Your task to perform on an android device: Is it going to rain this weekend? Image 0: 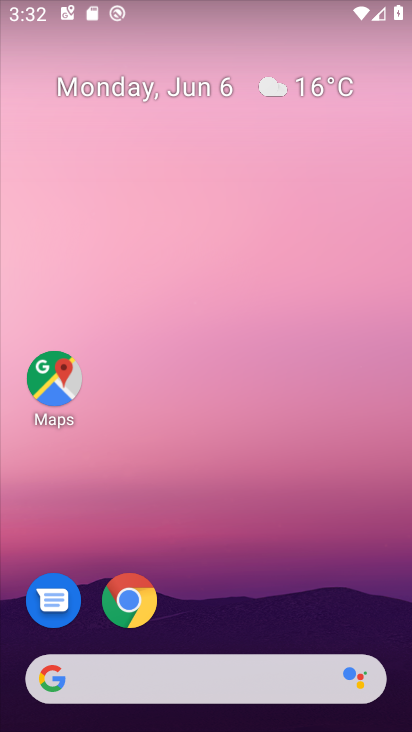
Step 0: drag from (284, 706) to (110, 43)
Your task to perform on an android device: Is it going to rain this weekend? Image 1: 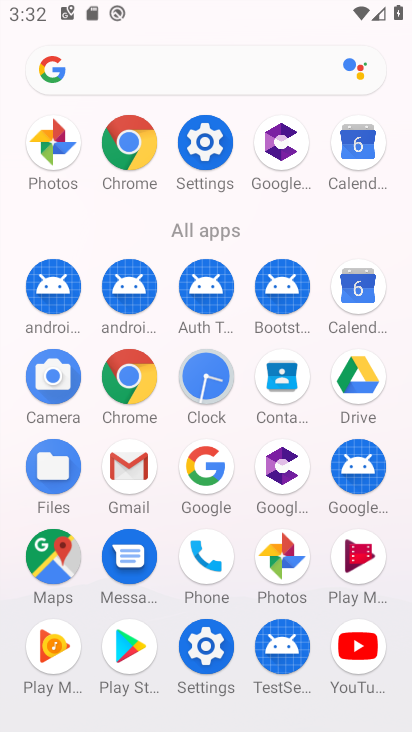
Step 1: press back button
Your task to perform on an android device: Is it going to rain this weekend? Image 2: 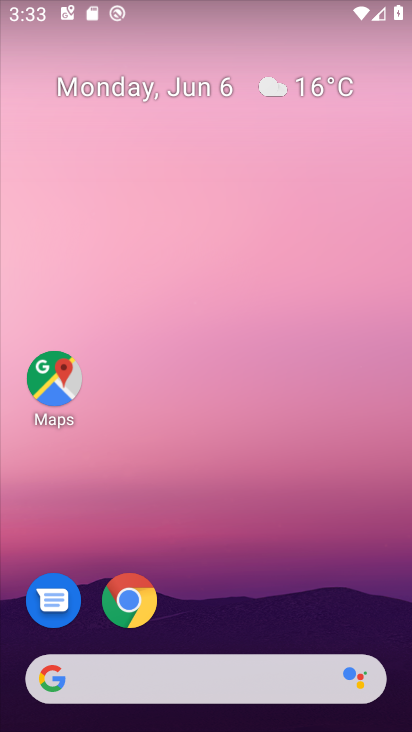
Step 2: drag from (4, 189) to (411, 452)
Your task to perform on an android device: Is it going to rain this weekend? Image 3: 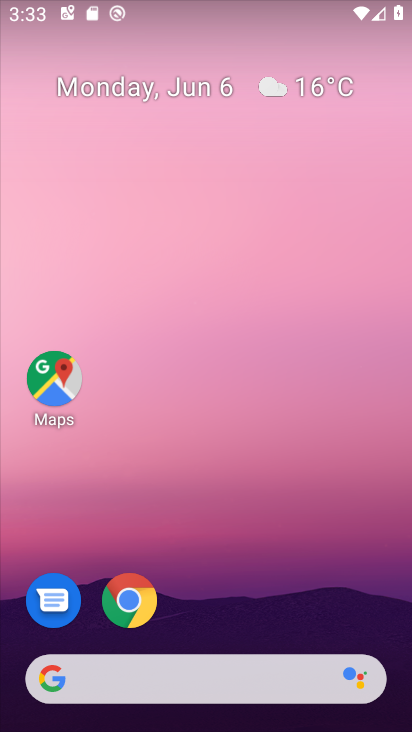
Step 3: drag from (21, 210) to (397, 418)
Your task to perform on an android device: Is it going to rain this weekend? Image 4: 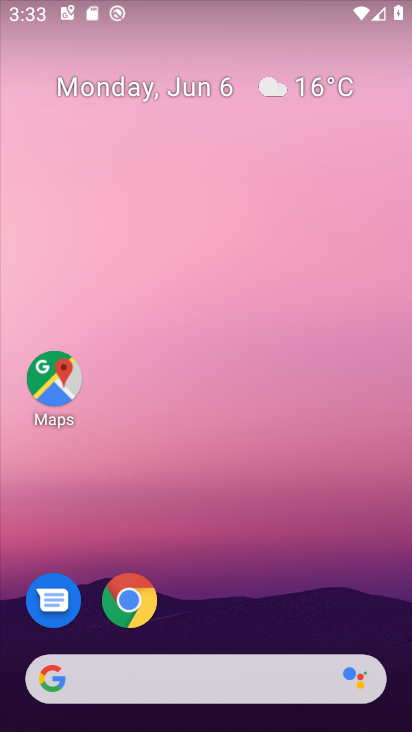
Step 4: drag from (0, 178) to (365, 520)
Your task to perform on an android device: Is it going to rain this weekend? Image 5: 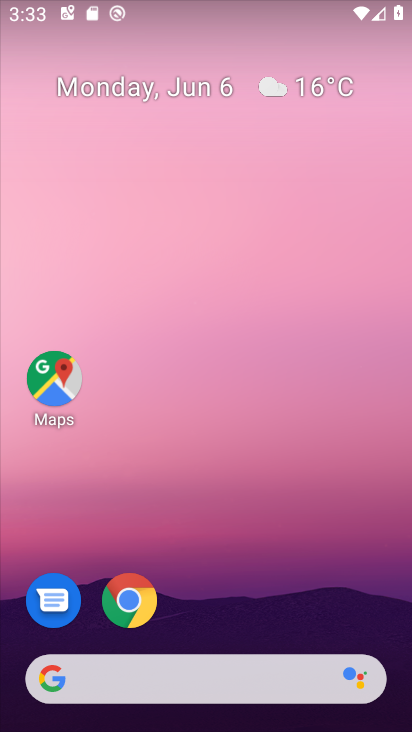
Step 5: drag from (24, 131) to (397, 681)
Your task to perform on an android device: Is it going to rain this weekend? Image 6: 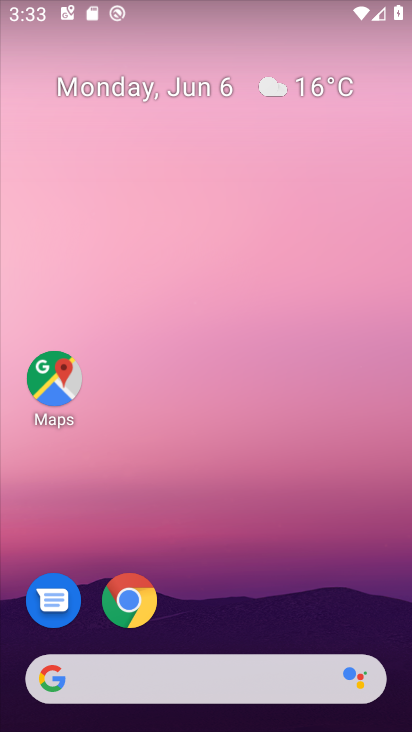
Step 6: drag from (9, 281) to (411, 710)
Your task to perform on an android device: Is it going to rain this weekend? Image 7: 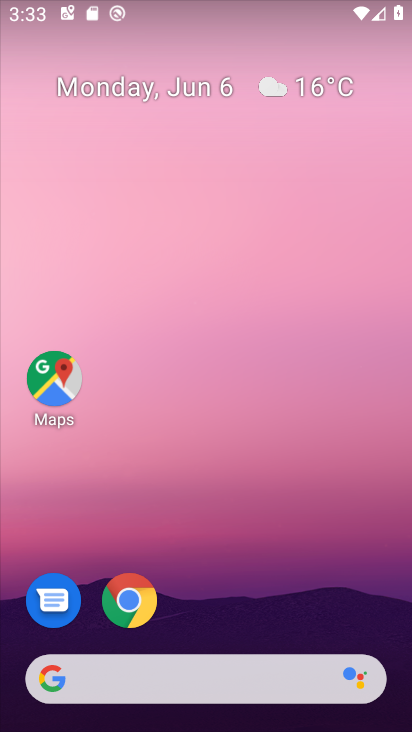
Step 7: drag from (6, 199) to (408, 579)
Your task to perform on an android device: Is it going to rain this weekend? Image 8: 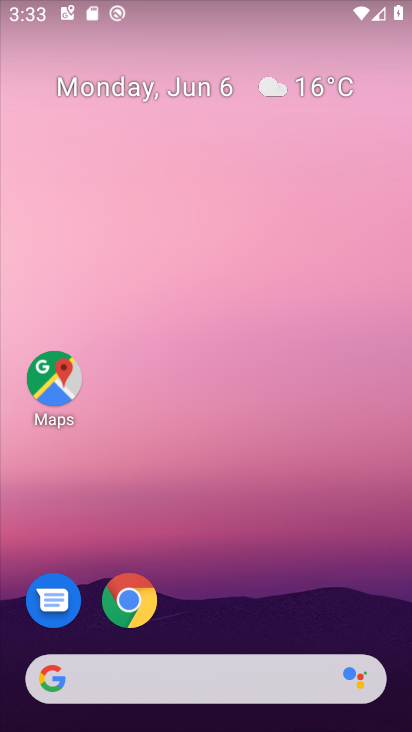
Step 8: drag from (51, 150) to (410, 620)
Your task to perform on an android device: Is it going to rain this weekend? Image 9: 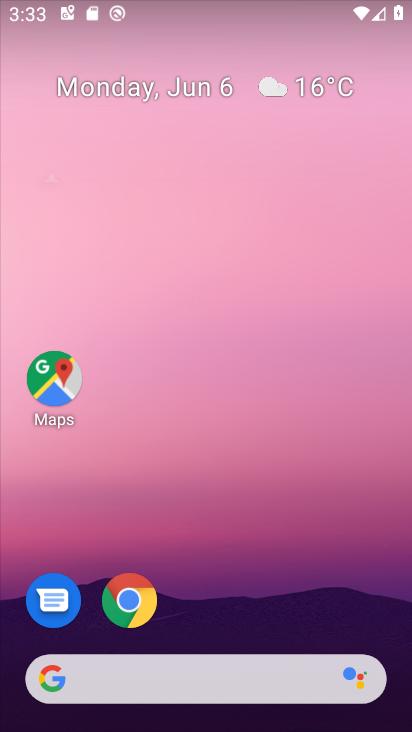
Step 9: drag from (68, 164) to (412, 254)
Your task to perform on an android device: Is it going to rain this weekend? Image 10: 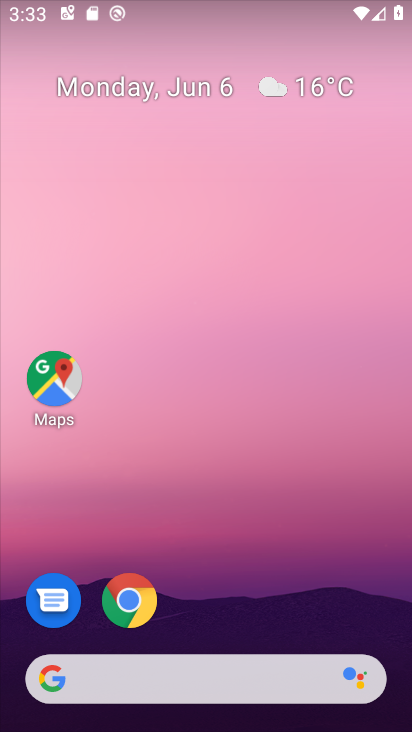
Step 10: click (267, 94)
Your task to perform on an android device: Is it going to rain this weekend? Image 11: 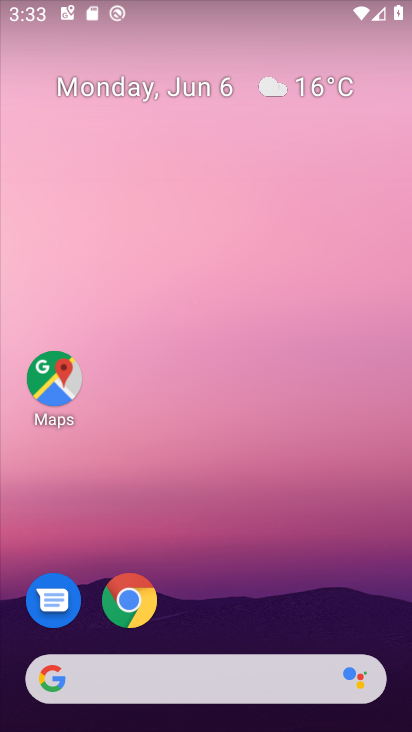
Step 11: click (267, 94)
Your task to perform on an android device: Is it going to rain this weekend? Image 12: 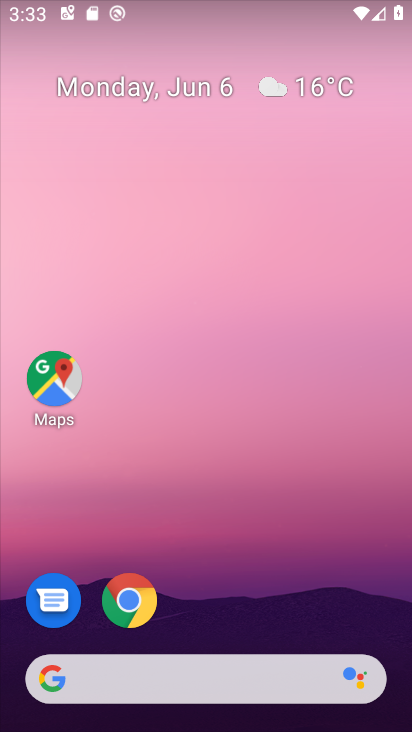
Step 12: click (269, 92)
Your task to perform on an android device: Is it going to rain this weekend? Image 13: 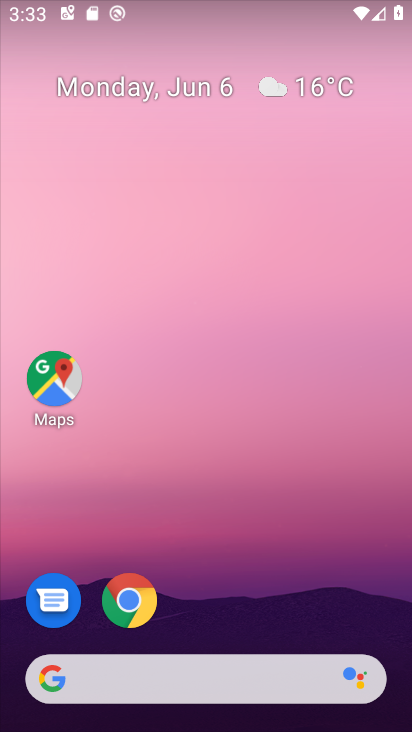
Step 13: click (269, 92)
Your task to perform on an android device: Is it going to rain this weekend? Image 14: 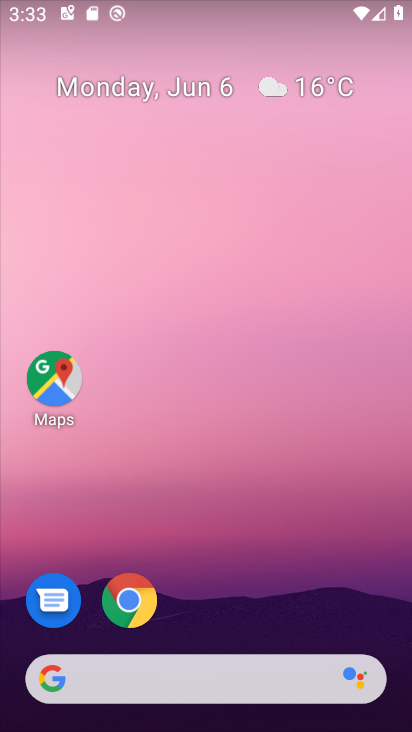
Step 14: click (267, 88)
Your task to perform on an android device: Is it going to rain this weekend? Image 15: 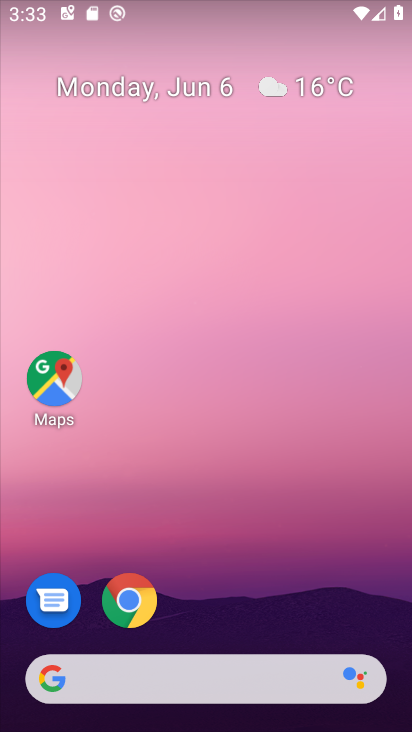
Step 15: click (267, 88)
Your task to perform on an android device: Is it going to rain this weekend? Image 16: 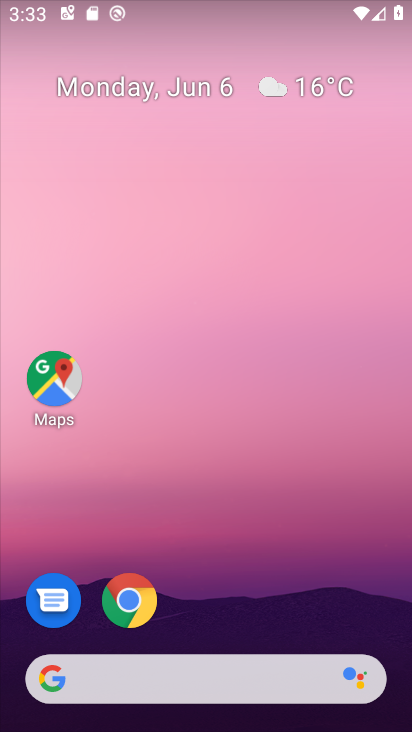
Step 16: drag from (40, 187) to (409, 438)
Your task to perform on an android device: Is it going to rain this weekend? Image 17: 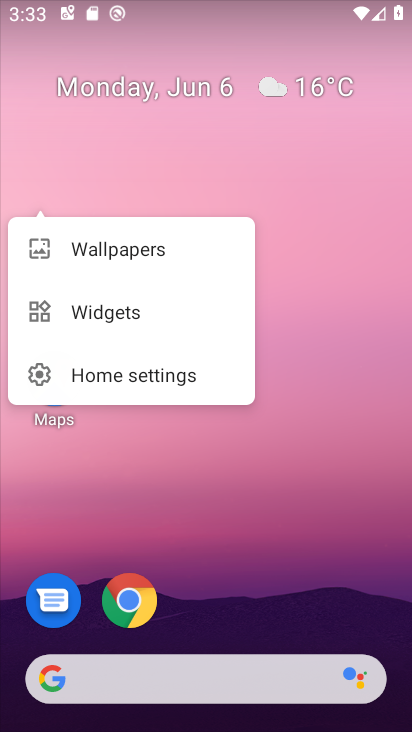
Step 17: drag from (92, 93) to (284, 489)
Your task to perform on an android device: Is it going to rain this weekend? Image 18: 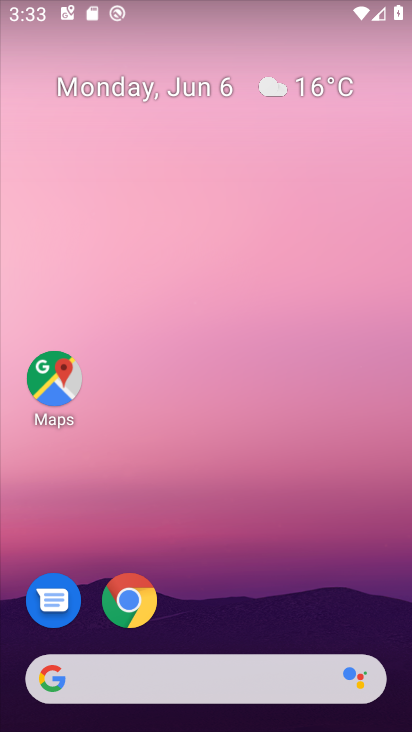
Step 18: drag from (38, 143) to (344, 601)
Your task to perform on an android device: Is it going to rain this weekend? Image 19: 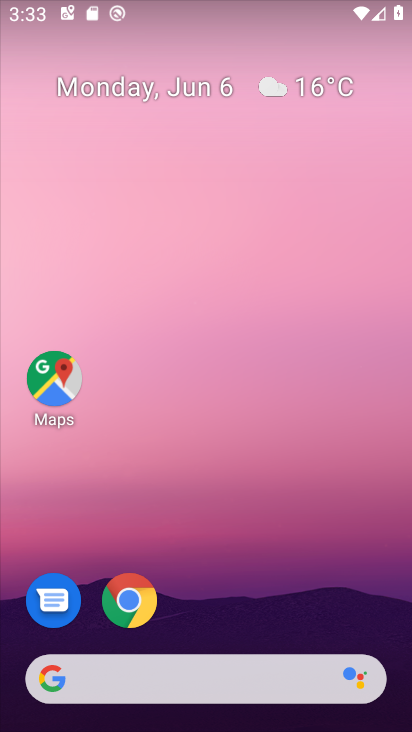
Step 19: drag from (406, 668) to (376, 452)
Your task to perform on an android device: Is it going to rain this weekend? Image 20: 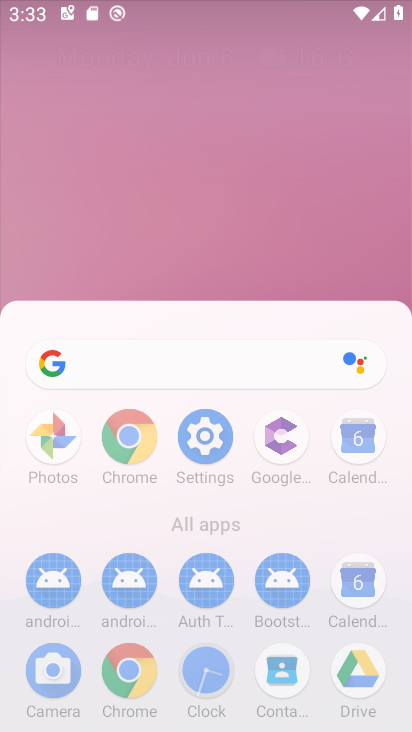
Step 20: drag from (127, 268) to (405, 540)
Your task to perform on an android device: Is it going to rain this weekend? Image 21: 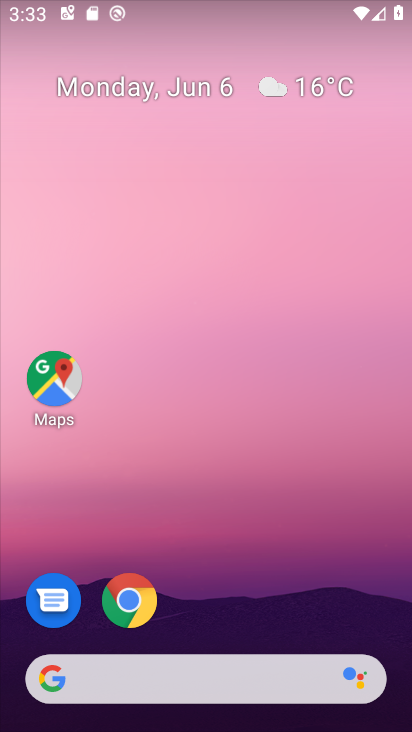
Step 21: drag from (87, 257) to (335, 425)
Your task to perform on an android device: Is it going to rain this weekend? Image 22: 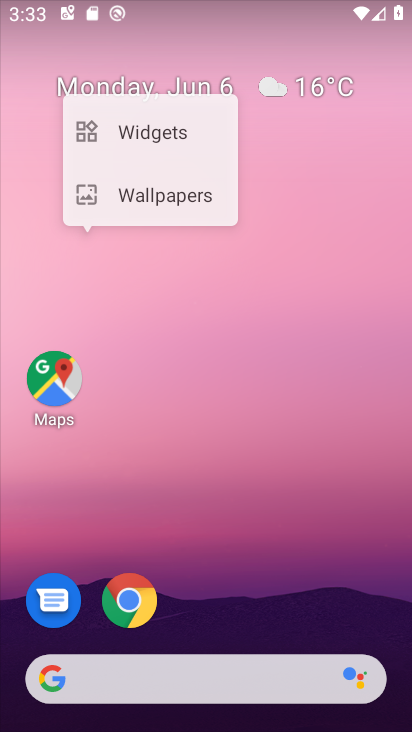
Step 22: drag from (55, 227) to (409, 691)
Your task to perform on an android device: Is it going to rain this weekend? Image 23: 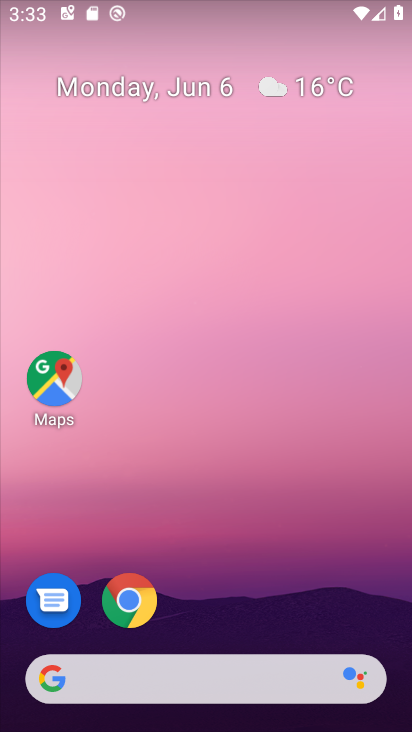
Step 23: drag from (51, 181) to (384, 559)
Your task to perform on an android device: Is it going to rain this weekend? Image 24: 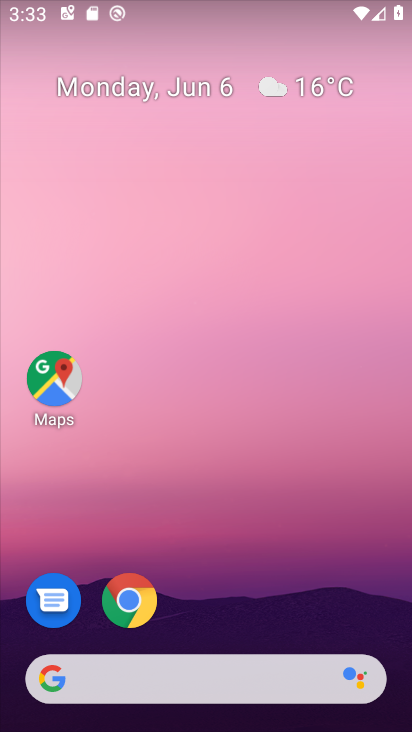
Step 24: click (272, 91)
Your task to perform on an android device: Is it going to rain this weekend? Image 25: 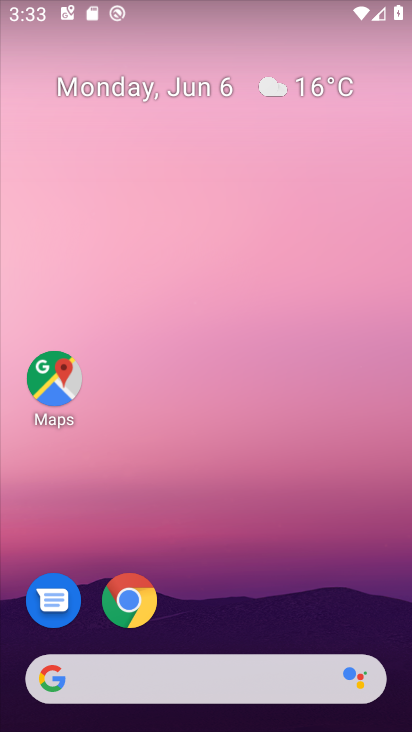
Step 25: task complete